Your task to perform on an android device: Go to Reddit.com Image 0: 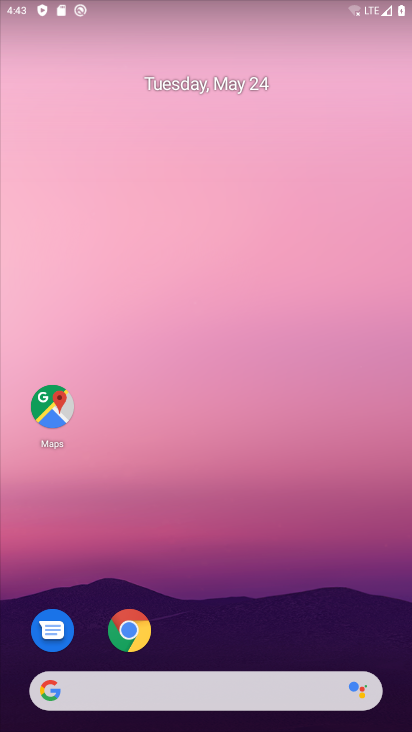
Step 0: click (43, 414)
Your task to perform on an android device: Go to Reddit.com Image 1: 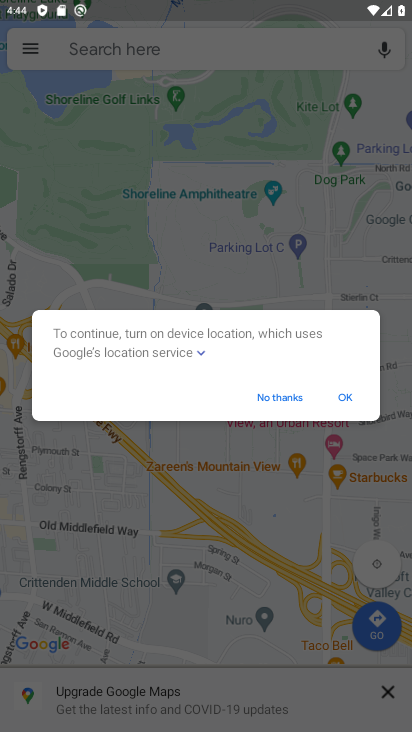
Step 1: press home button
Your task to perform on an android device: Go to Reddit.com Image 2: 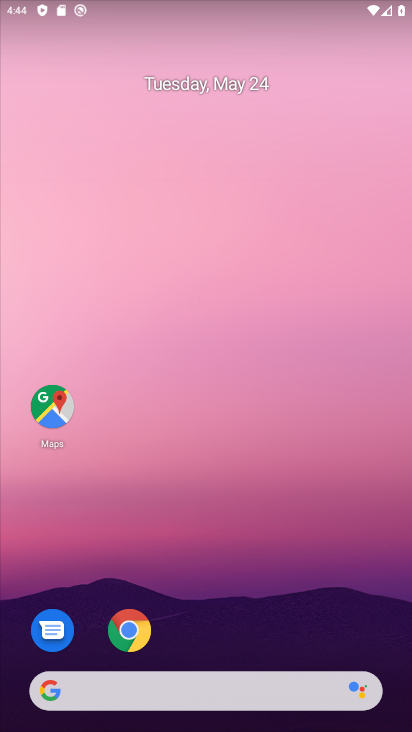
Step 2: click (210, 680)
Your task to perform on an android device: Go to Reddit.com Image 3: 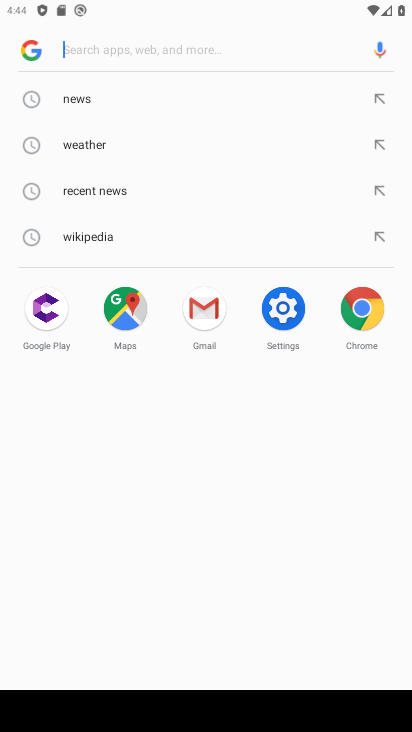
Step 3: type "reddit.com"
Your task to perform on an android device: Go to Reddit.com Image 4: 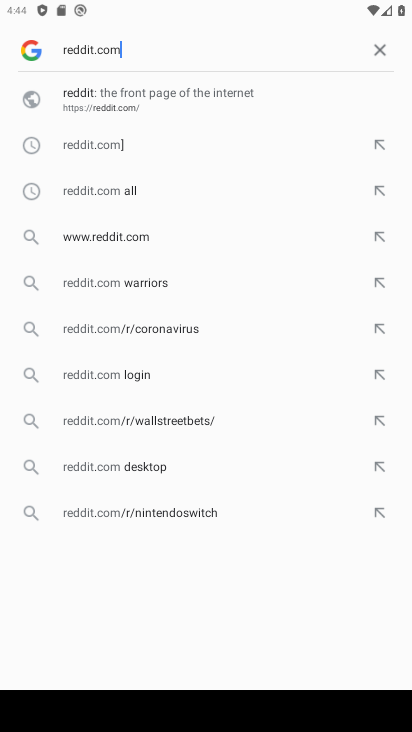
Step 4: click (187, 122)
Your task to perform on an android device: Go to Reddit.com Image 5: 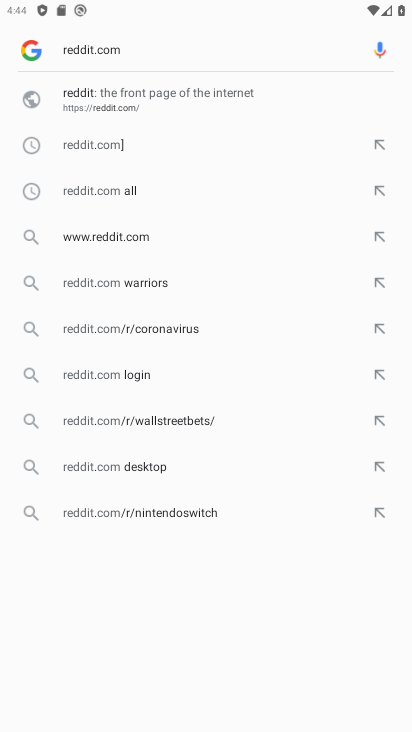
Step 5: click (112, 107)
Your task to perform on an android device: Go to Reddit.com Image 6: 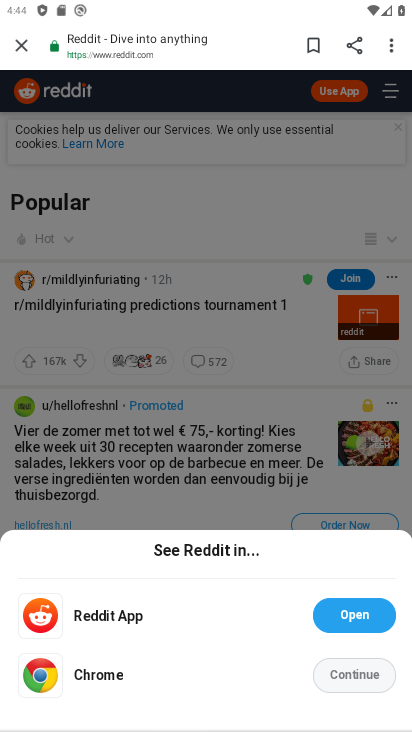
Step 6: task complete